Your task to perform on an android device: Go to Google maps Image 0: 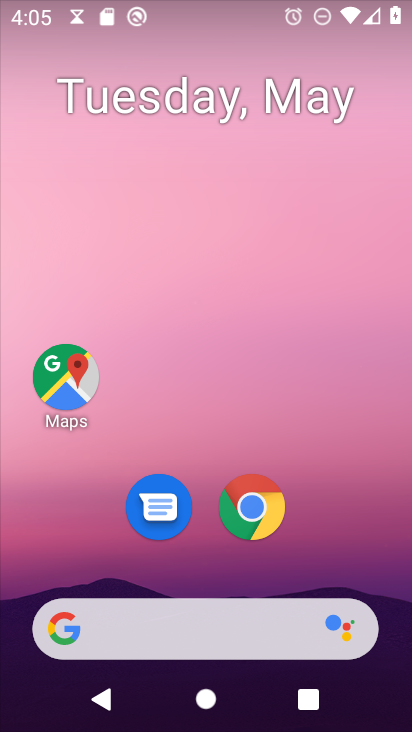
Step 0: click (64, 383)
Your task to perform on an android device: Go to Google maps Image 1: 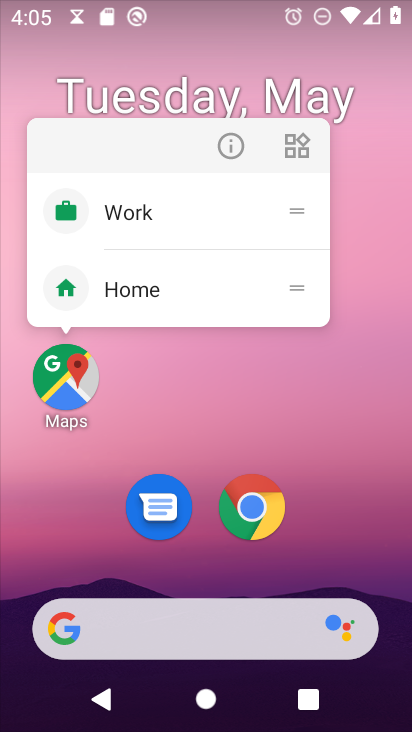
Step 1: click (64, 383)
Your task to perform on an android device: Go to Google maps Image 2: 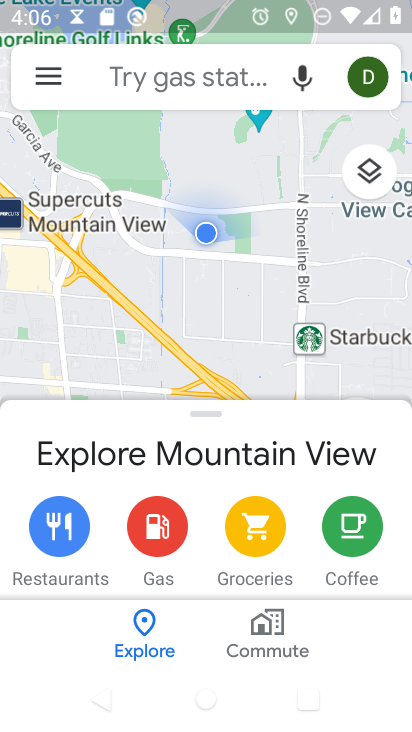
Step 2: task complete